Your task to perform on an android device: toggle javascript in the chrome app Image 0: 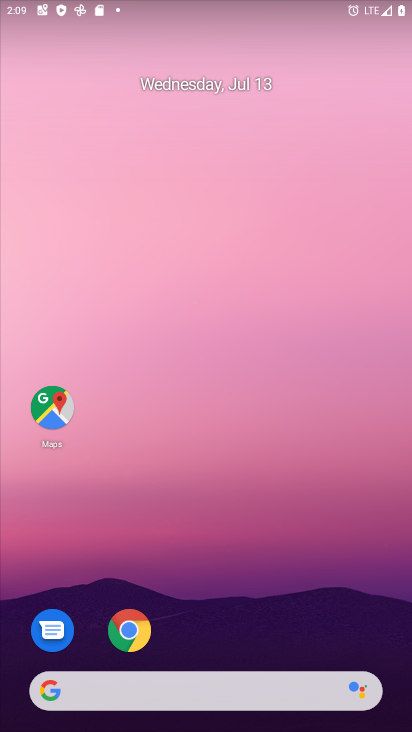
Step 0: drag from (387, 677) to (166, 0)
Your task to perform on an android device: toggle javascript in the chrome app Image 1: 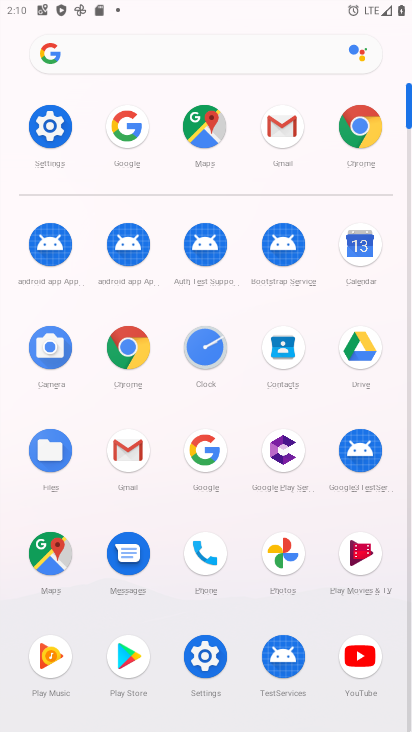
Step 1: click (115, 349)
Your task to perform on an android device: toggle javascript in the chrome app Image 2: 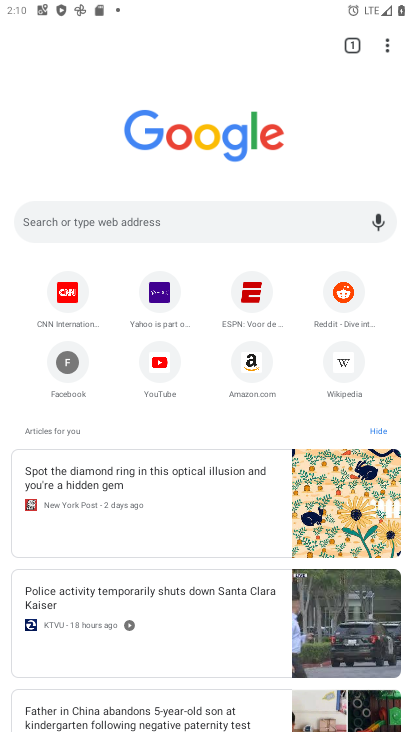
Step 2: click (385, 44)
Your task to perform on an android device: toggle javascript in the chrome app Image 3: 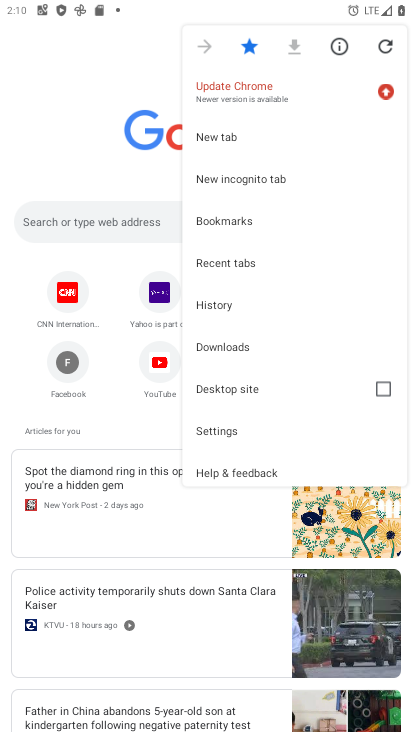
Step 3: click (227, 433)
Your task to perform on an android device: toggle javascript in the chrome app Image 4: 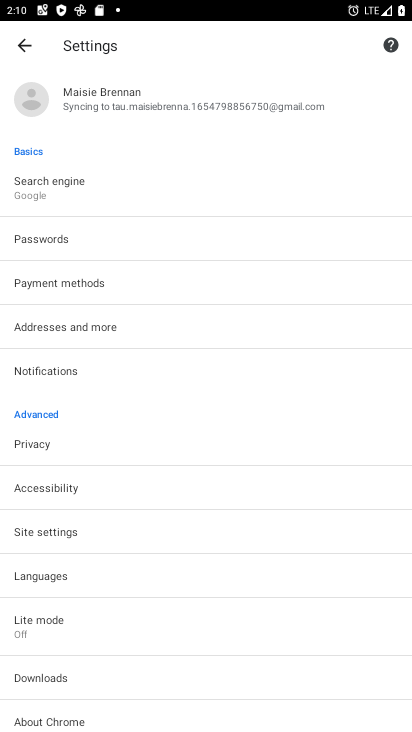
Step 4: click (91, 528)
Your task to perform on an android device: toggle javascript in the chrome app Image 5: 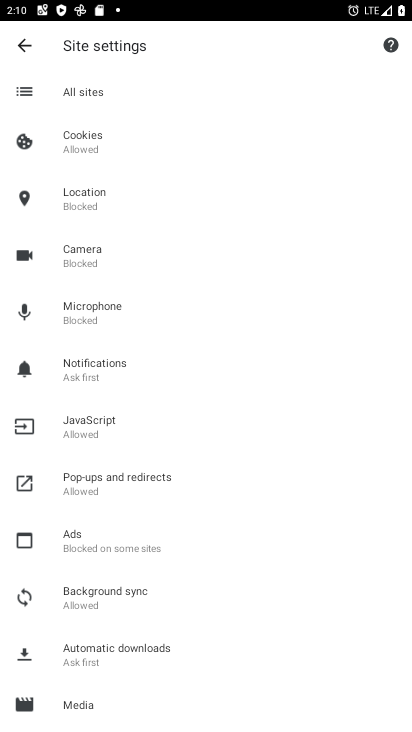
Step 5: click (98, 432)
Your task to perform on an android device: toggle javascript in the chrome app Image 6: 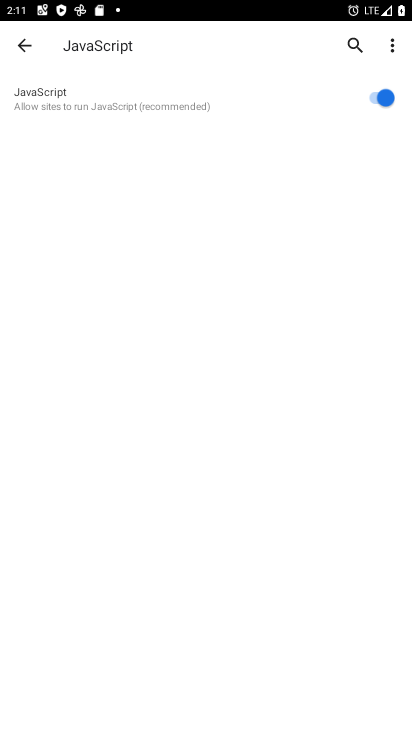
Step 6: click (326, 96)
Your task to perform on an android device: toggle javascript in the chrome app Image 7: 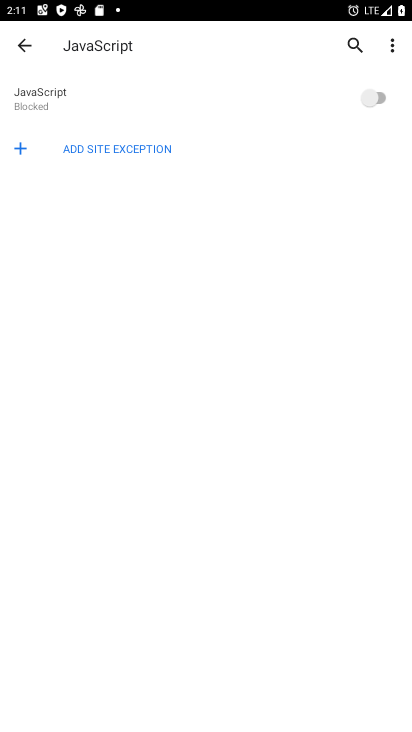
Step 7: task complete